Your task to perform on an android device: toggle pop-ups in chrome Image 0: 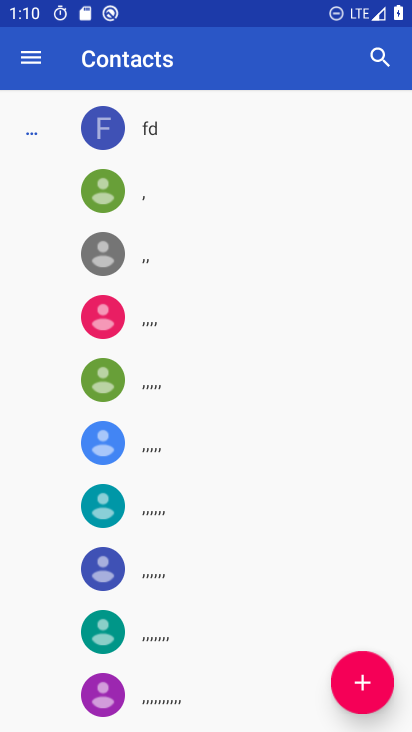
Step 0: press home button
Your task to perform on an android device: toggle pop-ups in chrome Image 1: 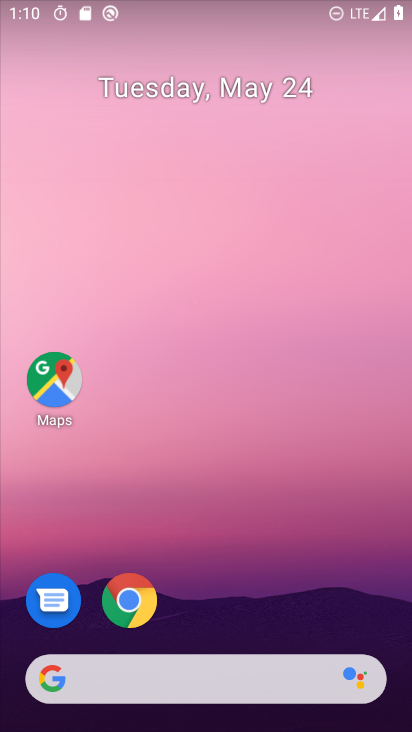
Step 1: click (127, 599)
Your task to perform on an android device: toggle pop-ups in chrome Image 2: 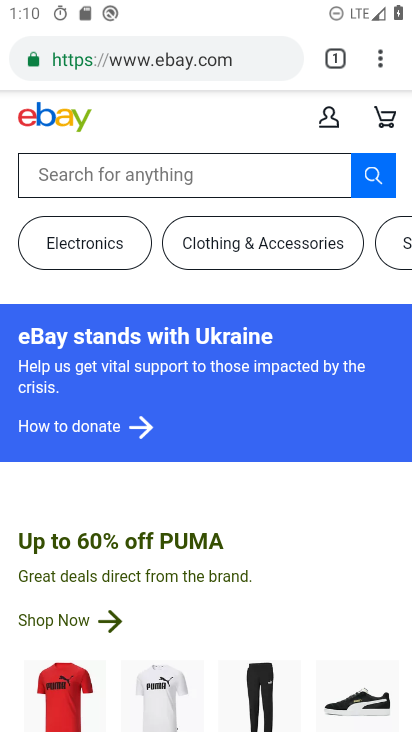
Step 2: click (380, 62)
Your task to perform on an android device: toggle pop-ups in chrome Image 3: 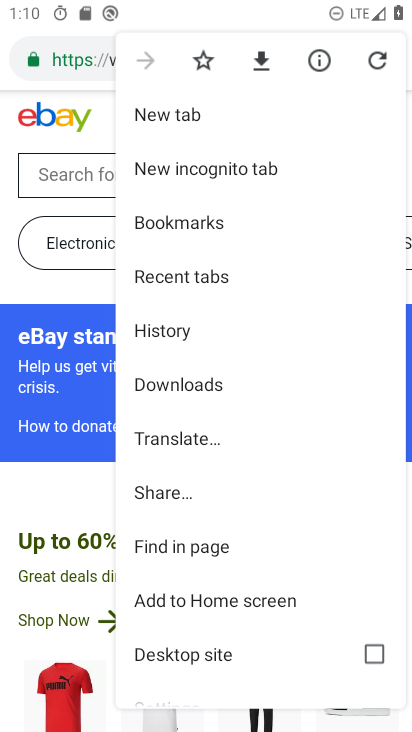
Step 3: drag from (194, 615) to (248, 316)
Your task to perform on an android device: toggle pop-ups in chrome Image 4: 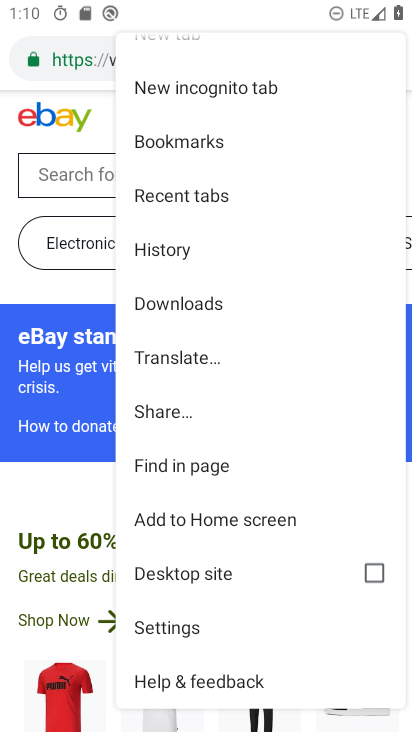
Step 4: click (177, 628)
Your task to perform on an android device: toggle pop-ups in chrome Image 5: 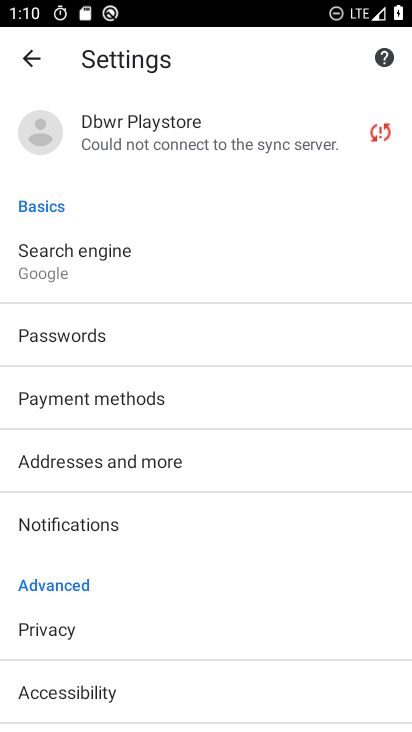
Step 5: drag from (256, 478) to (322, 67)
Your task to perform on an android device: toggle pop-ups in chrome Image 6: 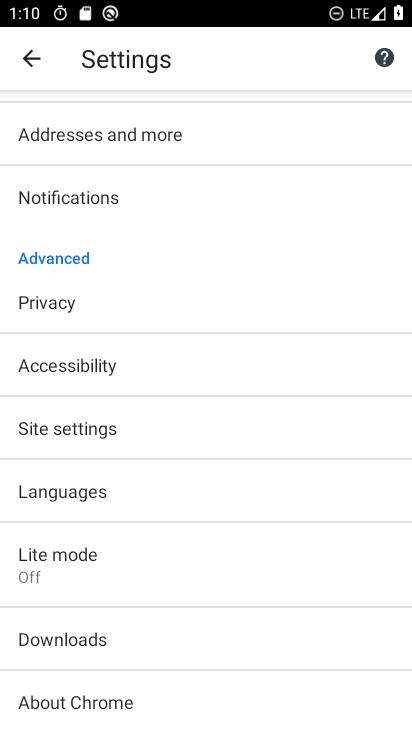
Step 6: click (86, 432)
Your task to perform on an android device: toggle pop-ups in chrome Image 7: 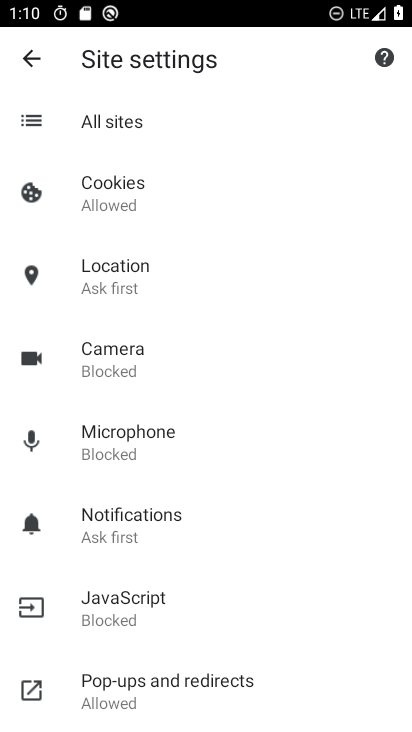
Step 7: click (156, 695)
Your task to perform on an android device: toggle pop-ups in chrome Image 8: 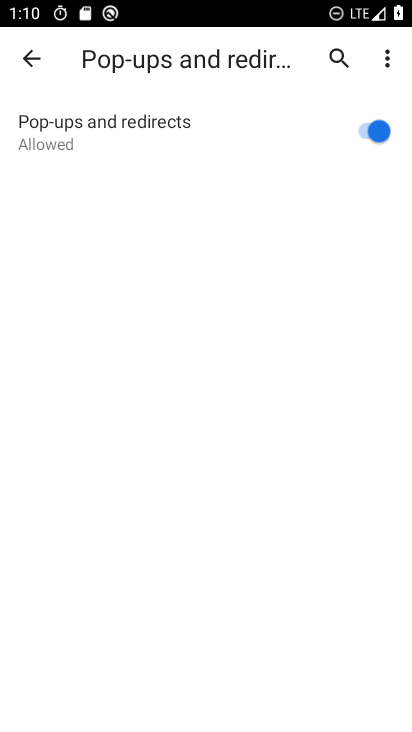
Step 8: click (365, 129)
Your task to perform on an android device: toggle pop-ups in chrome Image 9: 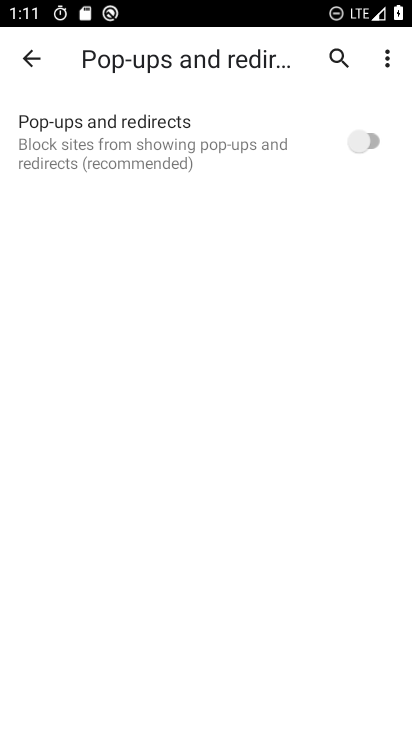
Step 9: task complete